Your task to perform on an android device: make emails show in primary in the gmail app Image 0: 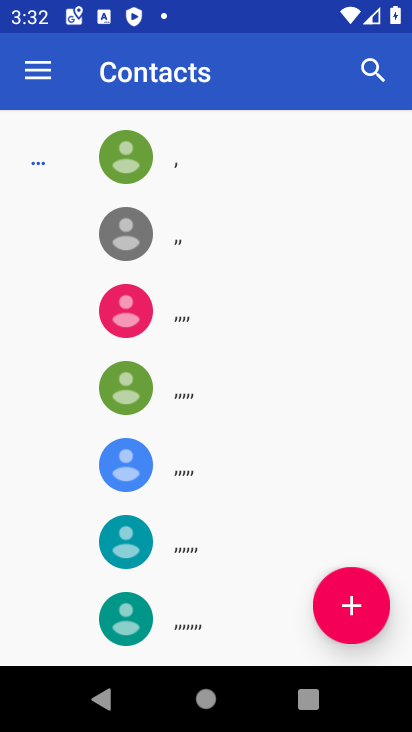
Step 0: press home button
Your task to perform on an android device: make emails show in primary in the gmail app Image 1: 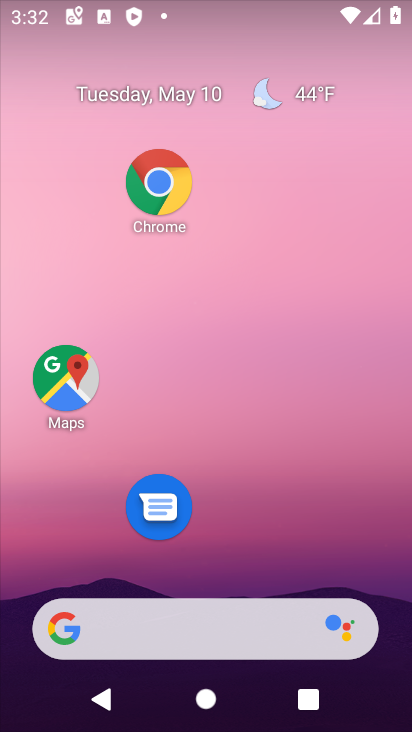
Step 1: drag from (288, 546) to (333, 131)
Your task to perform on an android device: make emails show in primary in the gmail app Image 2: 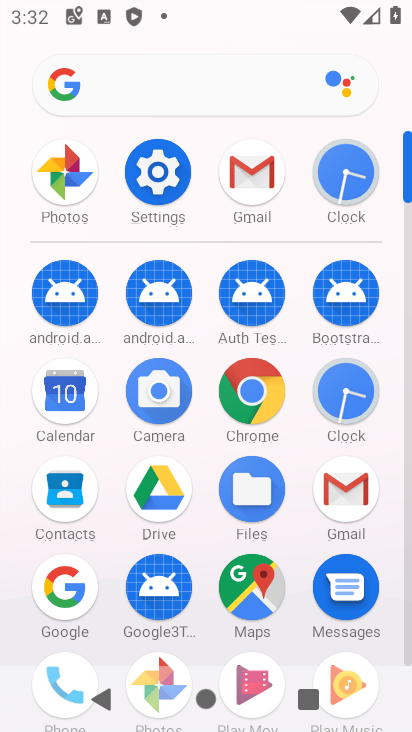
Step 2: click (351, 495)
Your task to perform on an android device: make emails show in primary in the gmail app Image 3: 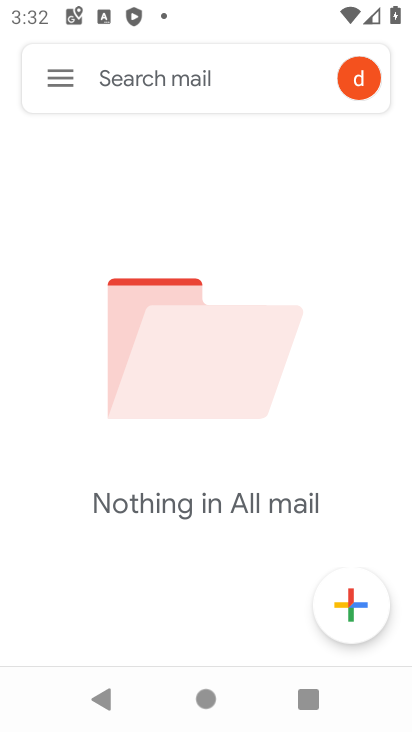
Step 3: click (51, 83)
Your task to perform on an android device: make emails show in primary in the gmail app Image 4: 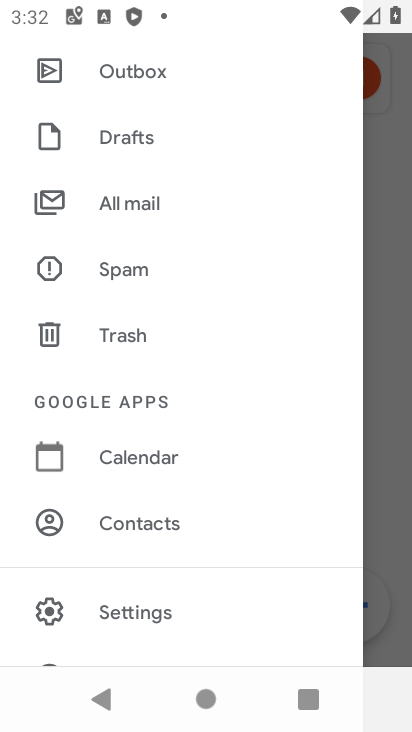
Step 4: click (79, 220)
Your task to perform on an android device: make emails show in primary in the gmail app Image 5: 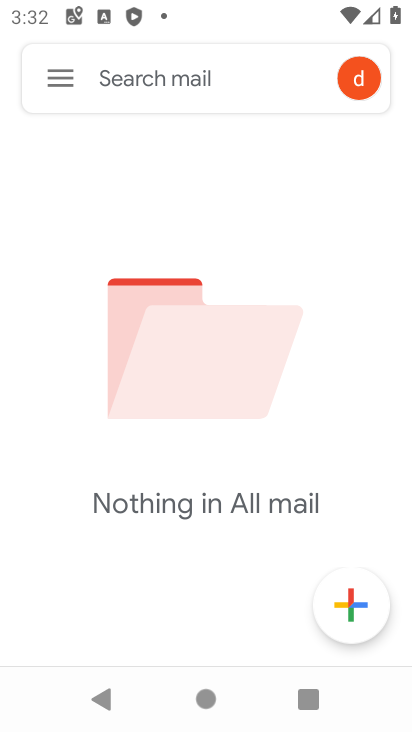
Step 5: click (37, 76)
Your task to perform on an android device: make emails show in primary in the gmail app Image 6: 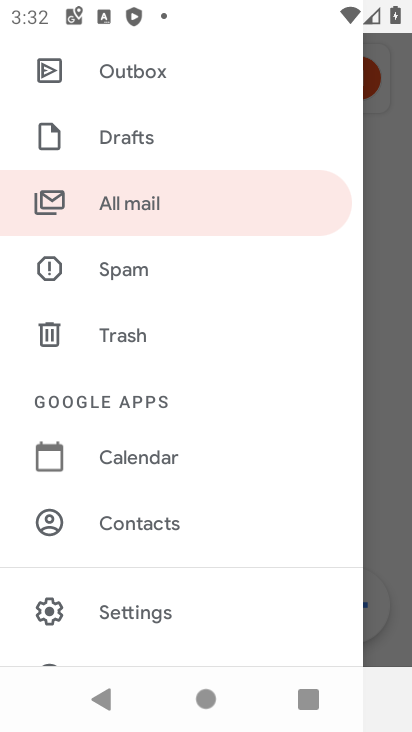
Step 6: click (217, 607)
Your task to perform on an android device: make emails show in primary in the gmail app Image 7: 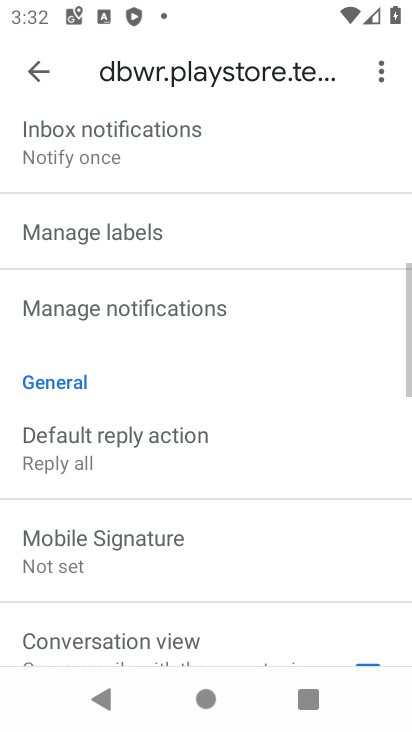
Step 7: task complete